Your task to perform on an android device: Open Yahoo.com Image 0: 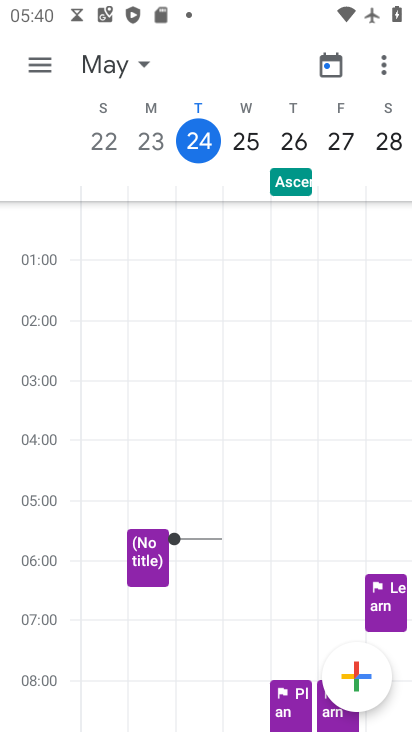
Step 0: press home button
Your task to perform on an android device: Open Yahoo.com Image 1: 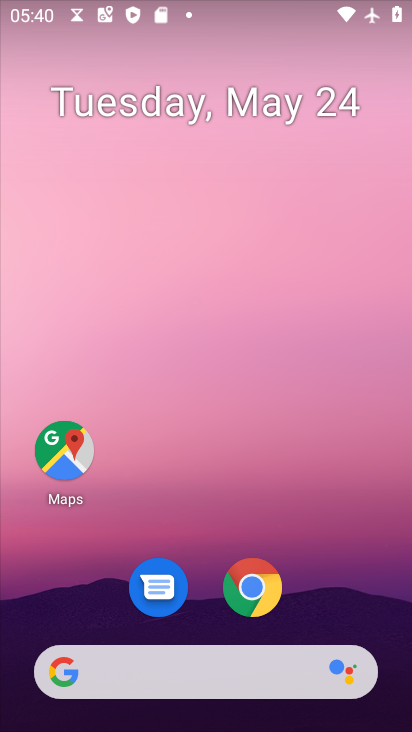
Step 1: click (266, 599)
Your task to perform on an android device: Open Yahoo.com Image 2: 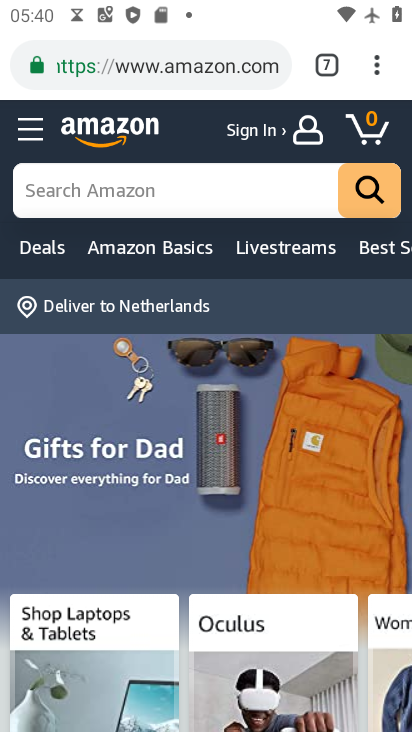
Step 2: click (333, 57)
Your task to perform on an android device: Open Yahoo.com Image 3: 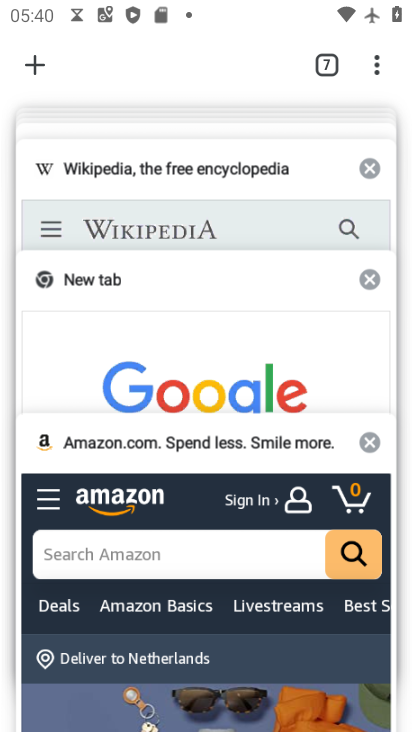
Step 3: drag from (204, 239) to (217, 650)
Your task to perform on an android device: Open Yahoo.com Image 4: 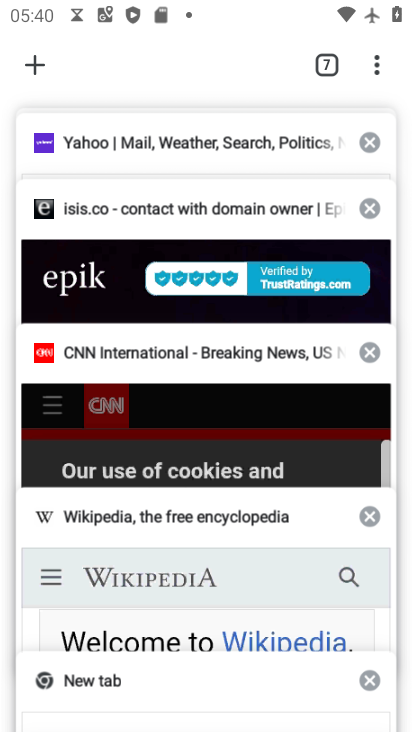
Step 4: click (156, 149)
Your task to perform on an android device: Open Yahoo.com Image 5: 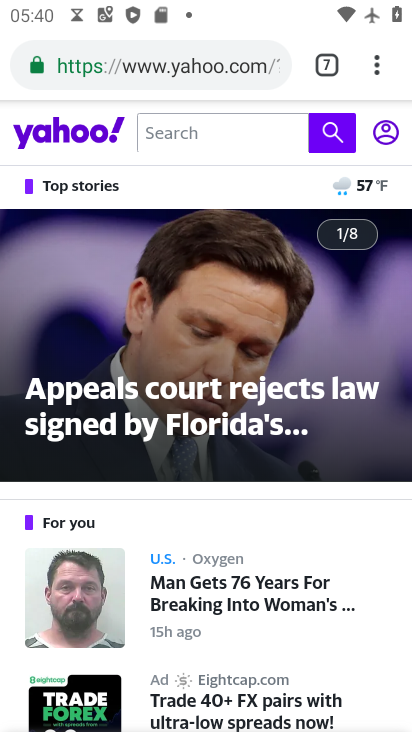
Step 5: task complete